Your task to perform on an android device: Go to display settings Image 0: 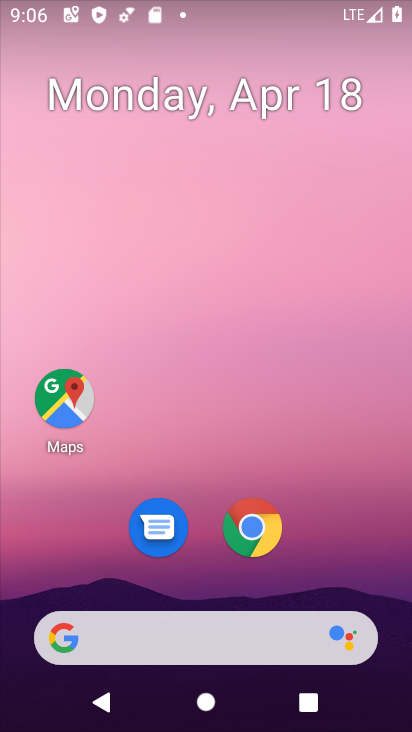
Step 0: drag from (379, 560) to (241, 25)
Your task to perform on an android device: Go to display settings Image 1: 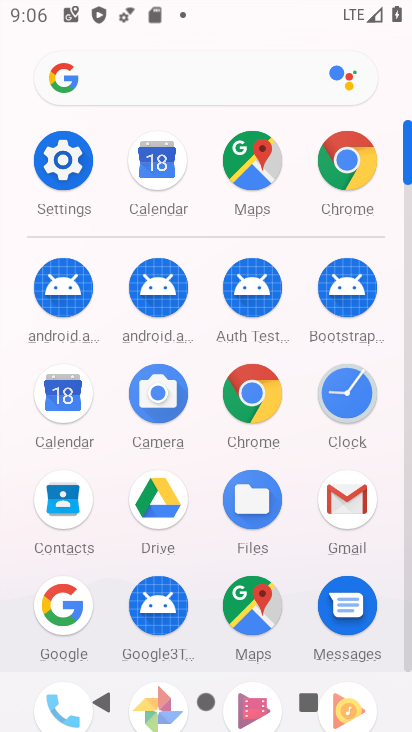
Step 1: drag from (5, 495) to (8, 152)
Your task to perform on an android device: Go to display settings Image 2: 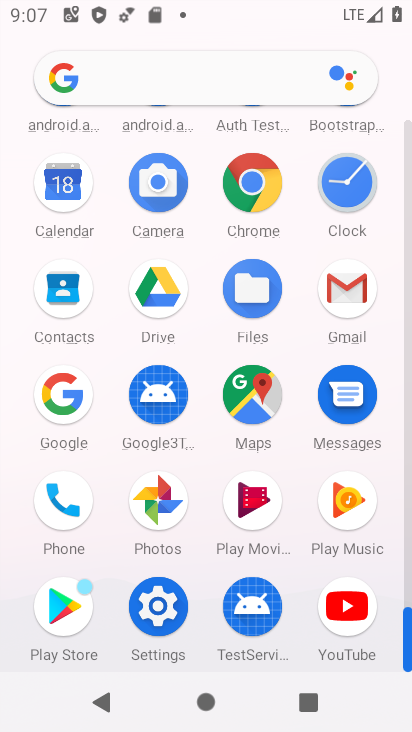
Step 2: click (157, 605)
Your task to perform on an android device: Go to display settings Image 3: 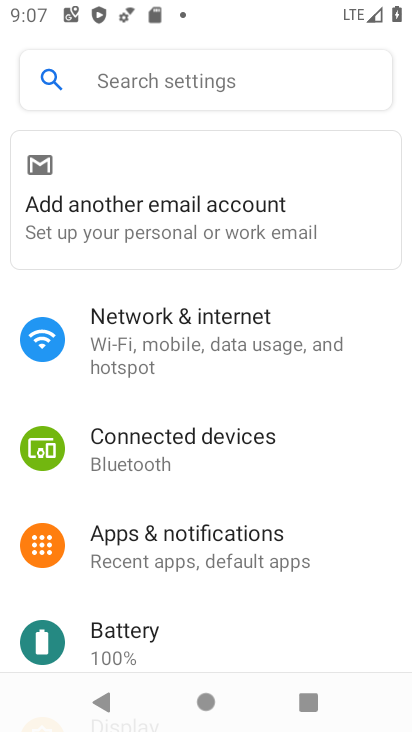
Step 3: drag from (287, 621) to (307, 289)
Your task to perform on an android device: Go to display settings Image 4: 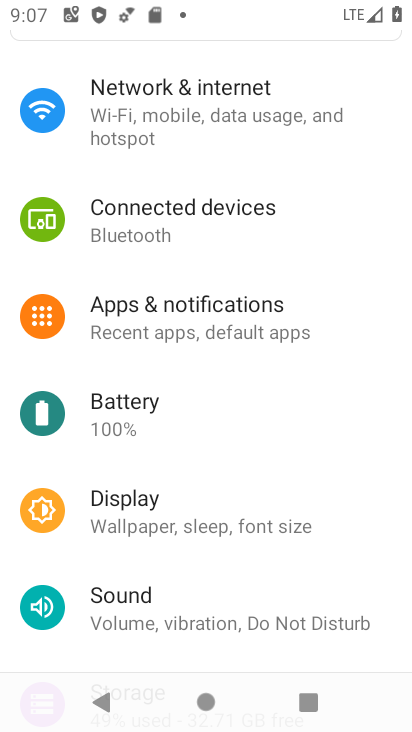
Step 4: click (200, 508)
Your task to perform on an android device: Go to display settings Image 5: 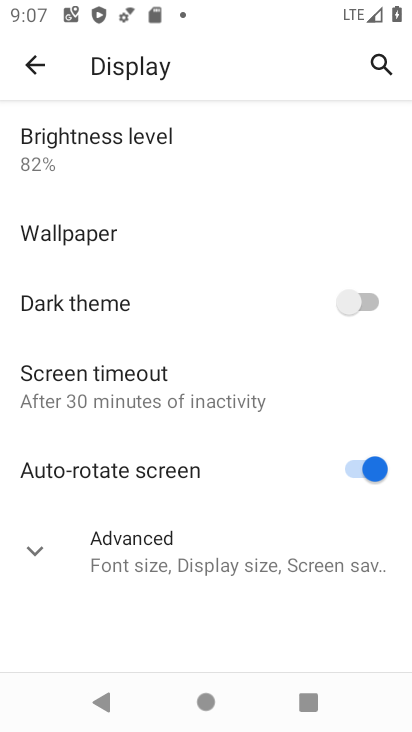
Step 5: task complete